Your task to perform on an android device: Check the news Image 0: 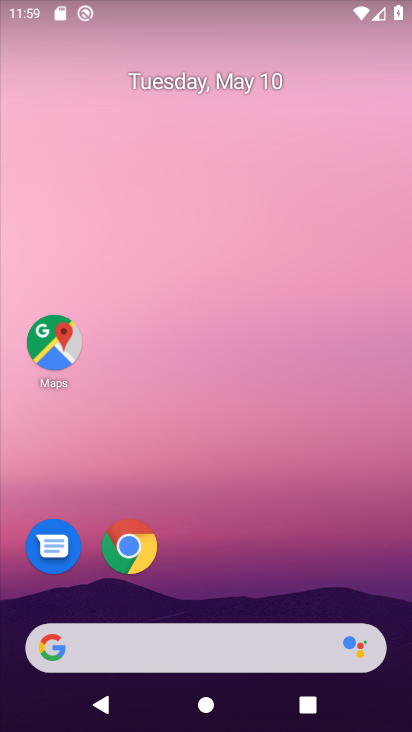
Step 0: drag from (221, 368) to (231, 223)
Your task to perform on an android device: Check the news Image 1: 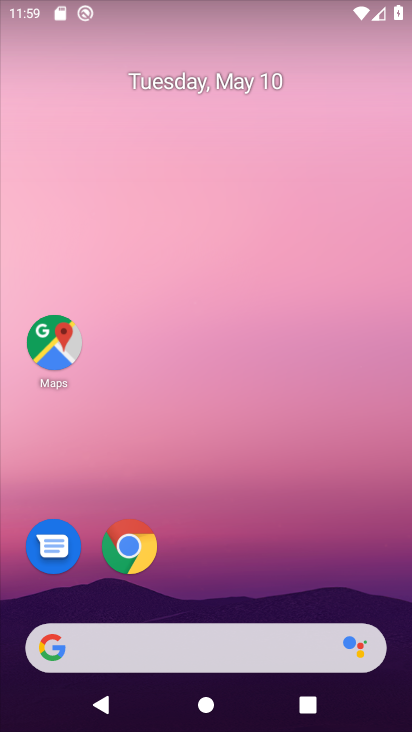
Step 1: drag from (193, 578) to (245, 205)
Your task to perform on an android device: Check the news Image 2: 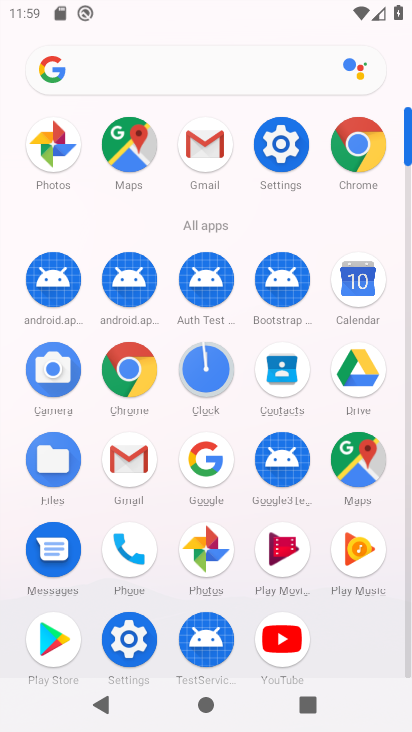
Step 2: click (354, 143)
Your task to perform on an android device: Check the news Image 3: 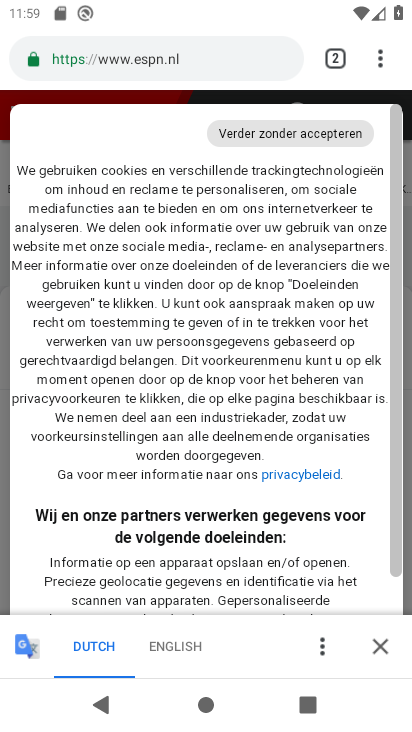
Step 3: click (371, 51)
Your task to perform on an android device: Check the news Image 4: 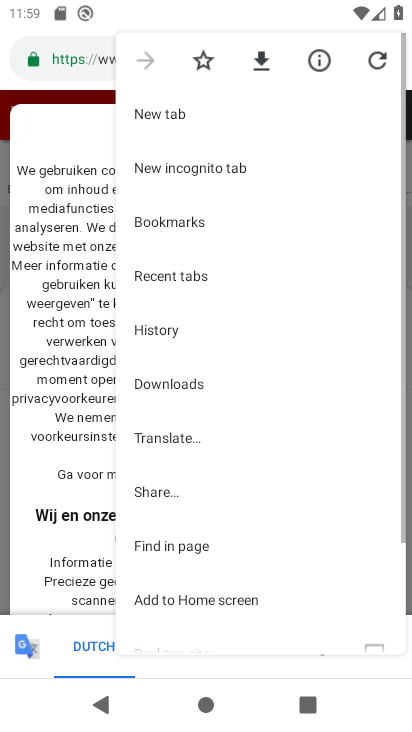
Step 4: click (198, 111)
Your task to perform on an android device: Check the news Image 5: 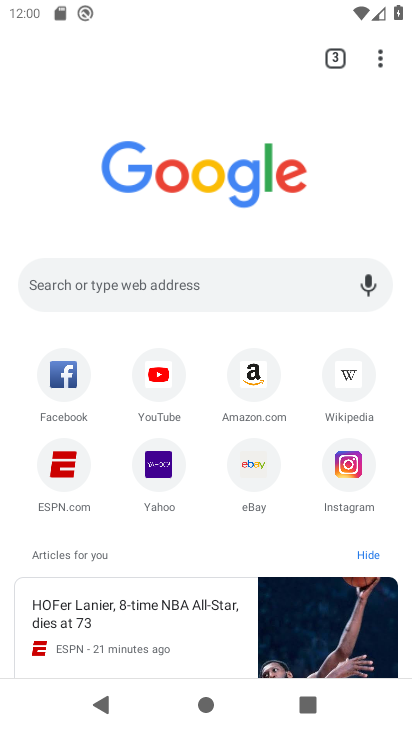
Step 5: click (232, 282)
Your task to perform on an android device: Check the news Image 6: 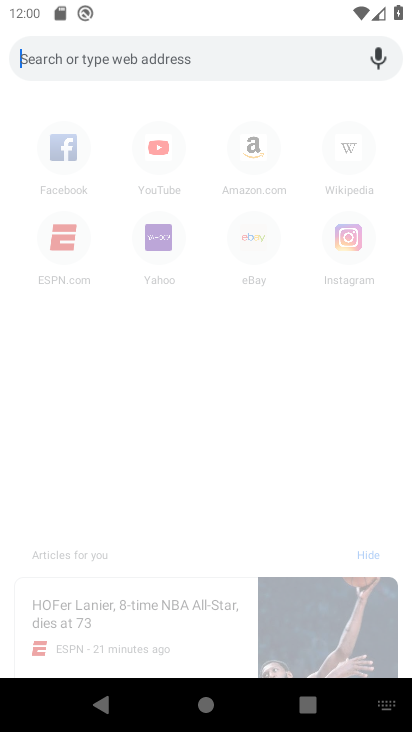
Step 6: type "Check the news"
Your task to perform on an android device: Check the news Image 7: 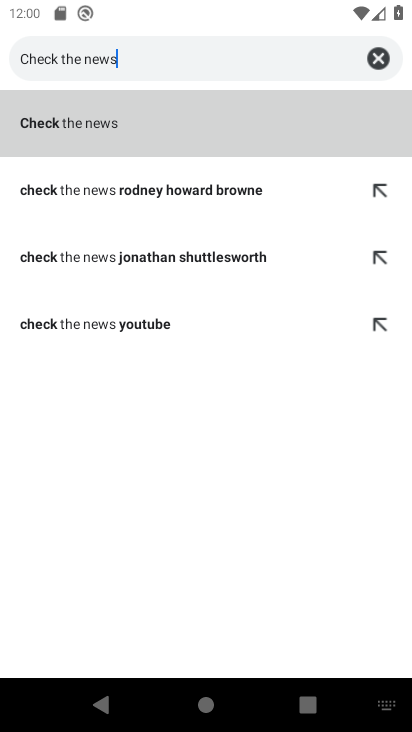
Step 7: click (98, 114)
Your task to perform on an android device: Check the news Image 8: 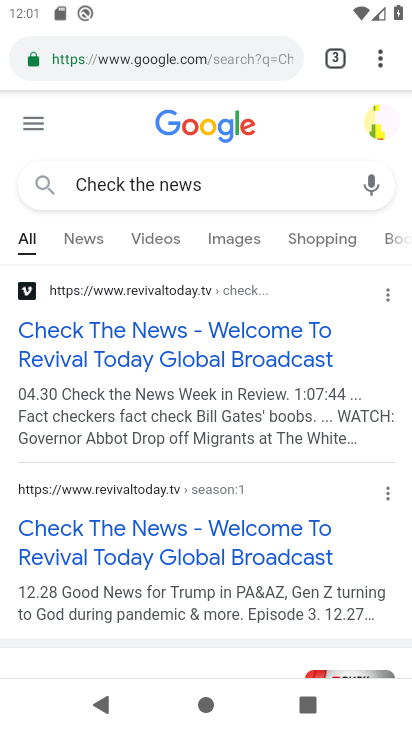
Step 8: task complete